Your task to perform on an android device: check android version Image 0: 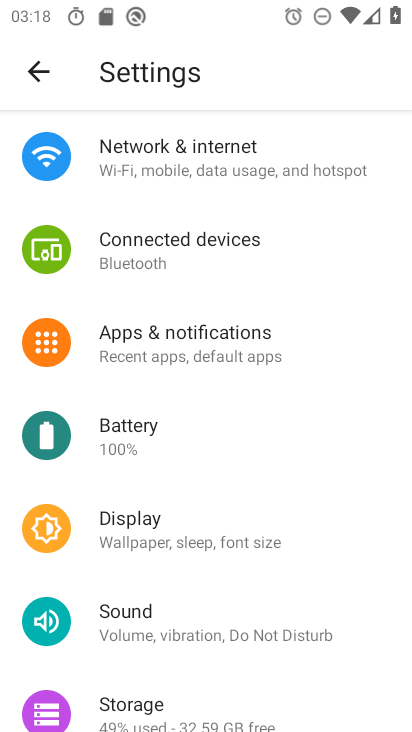
Step 0: drag from (277, 588) to (316, 89)
Your task to perform on an android device: check android version Image 1: 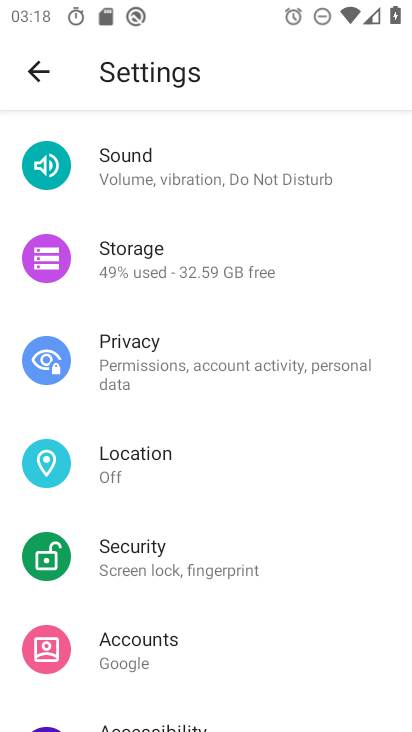
Step 1: drag from (245, 550) to (294, 161)
Your task to perform on an android device: check android version Image 2: 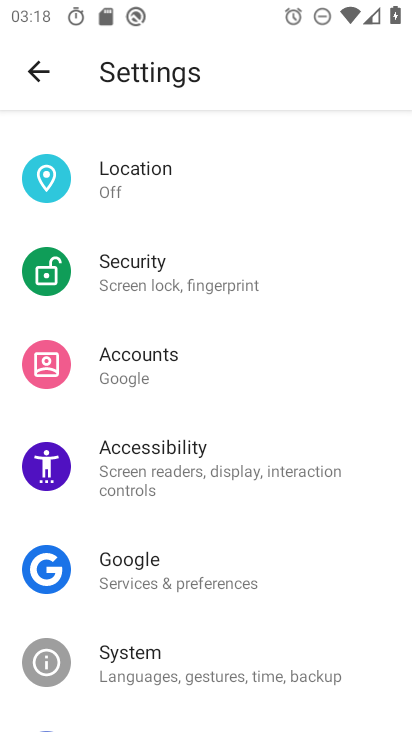
Step 2: drag from (250, 571) to (316, 191)
Your task to perform on an android device: check android version Image 3: 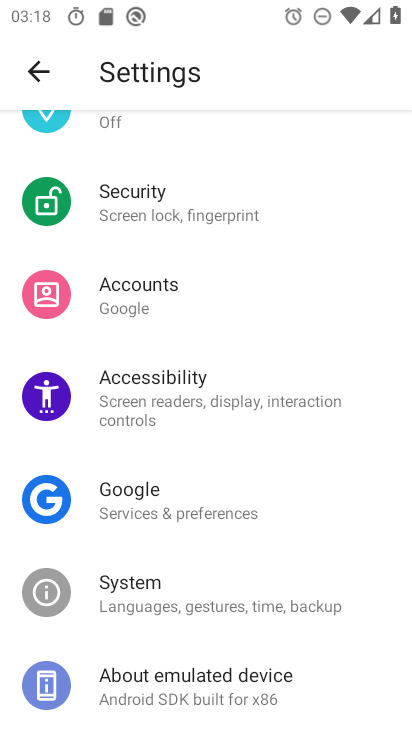
Step 3: click (162, 696)
Your task to perform on an android device: check android version Image 4: 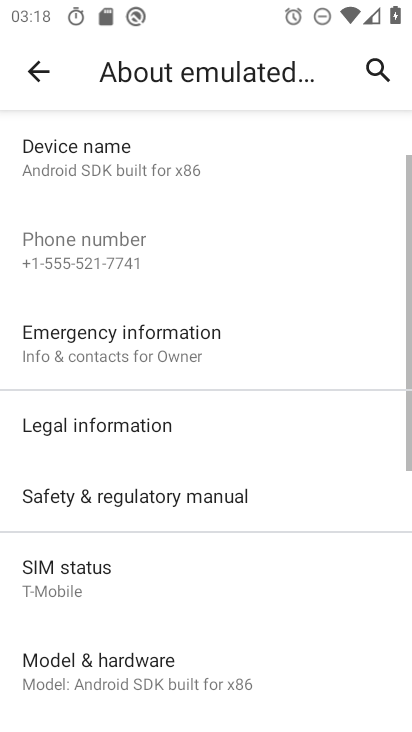
Step 4: drag from (318, 652) to (314, 196)
Your task to perform on an android device: check android version Image 5: 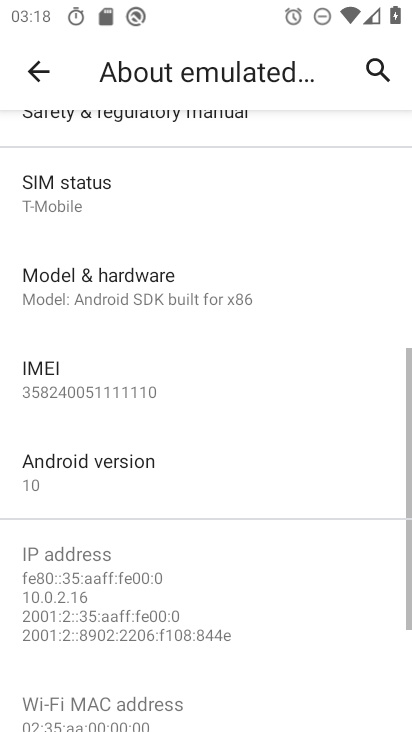
Step 5: click (137, 465)
Your task to perform on an android device: check android version Image 6: 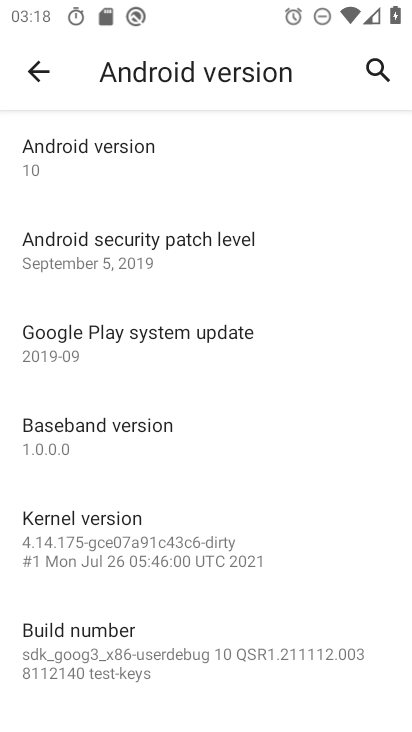
Step 6: click (124, 175)
Your task to perform on an android device: check android version Image 7: 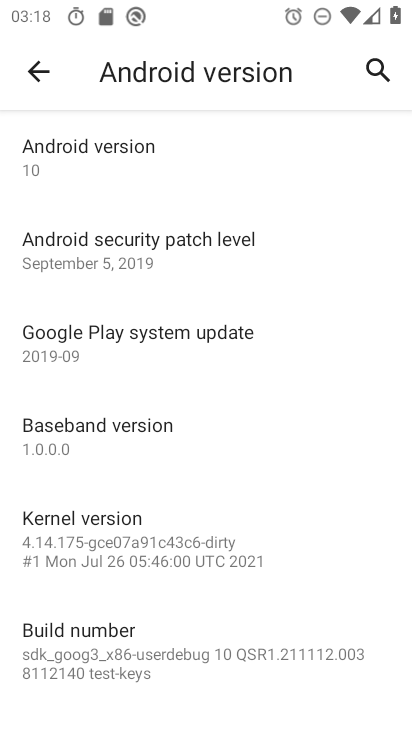
Step 7: task complete